Your task to perform on an android device: Open Reddit.com Image 0: 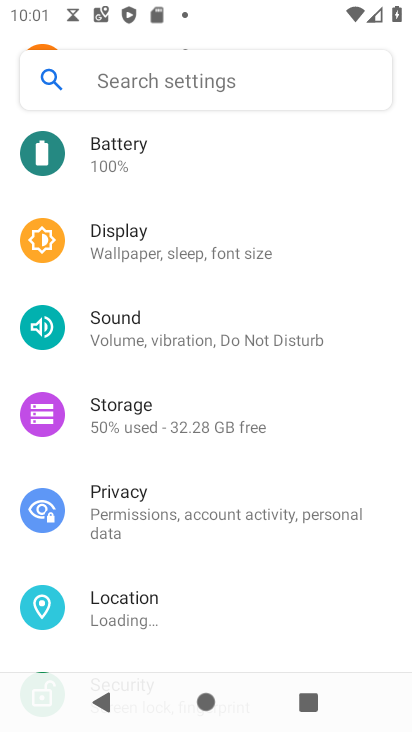
Step 0: press home button
Your task to perform on an android device: Open Reddit.com Image 1: 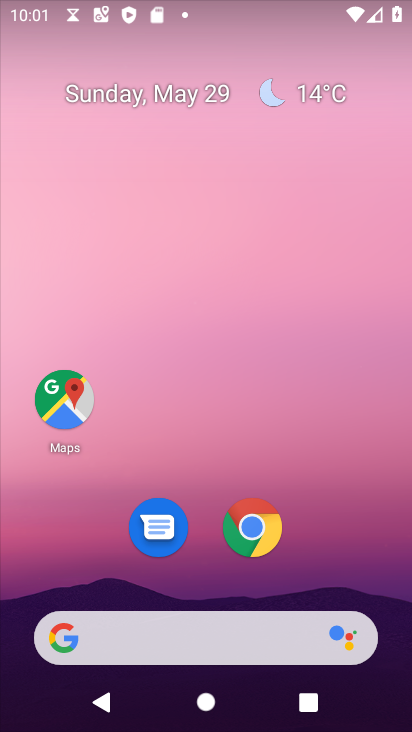
Step 1: click (258, 542)
Your task to perform on an android device: Open Reddit.com Image 2: 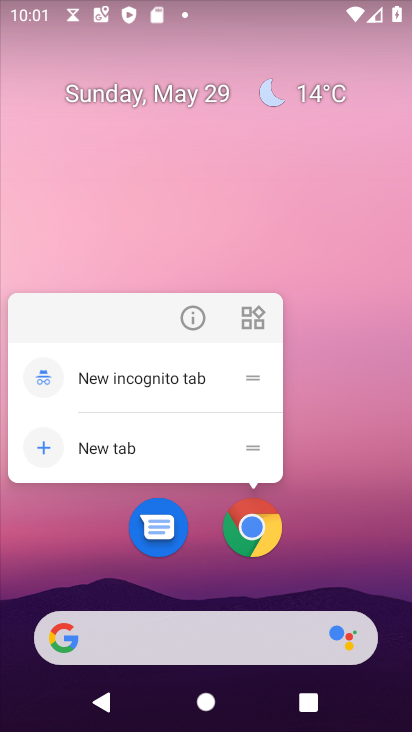
Step 2: click (249, 533)
Your task to perform on an android device: Open Reddit.com Image 3: 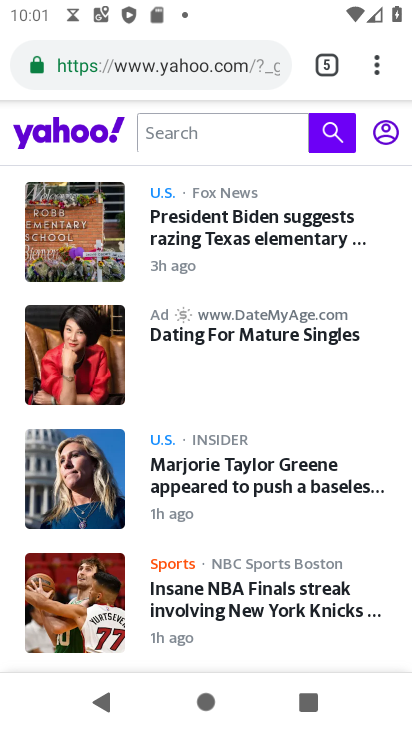
Step 3: click (186, 68)
Your task to perform on an android device: Open Reddit.com Image 4: 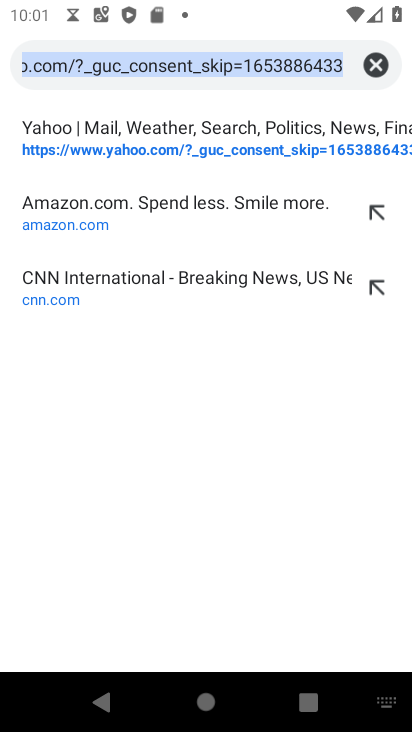
Step 4: click (381, 70)
Your task to perform on an android device: Open Reddit.com Image 5: 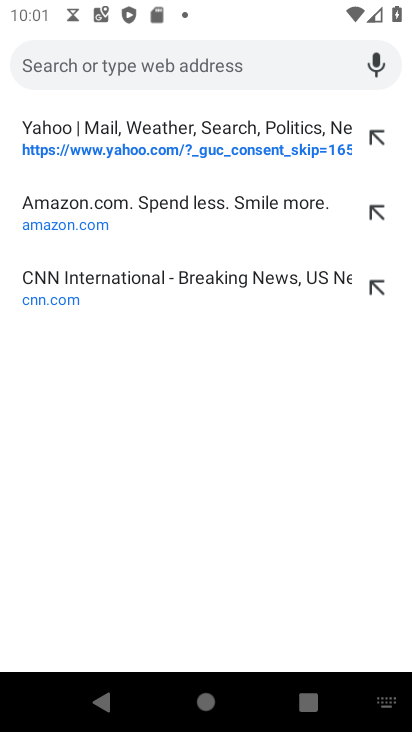
Step 5: type "reddit.com"
Your task to perform on an android device: Open Reddit.com Image 6: 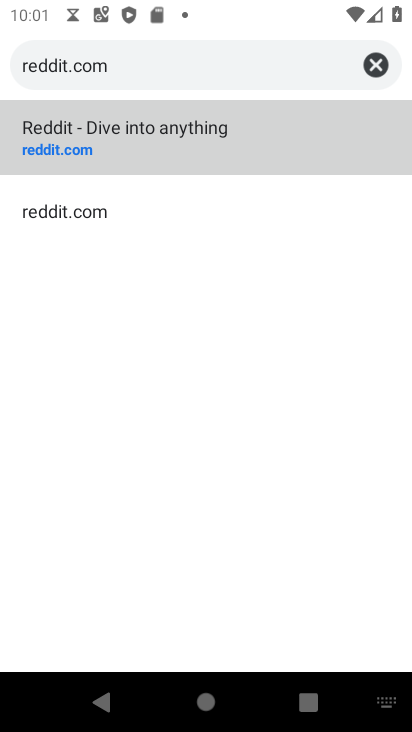
Step 6: click (151, 147)
Your task to perform on an android device: Open Reddit.com Image 7: 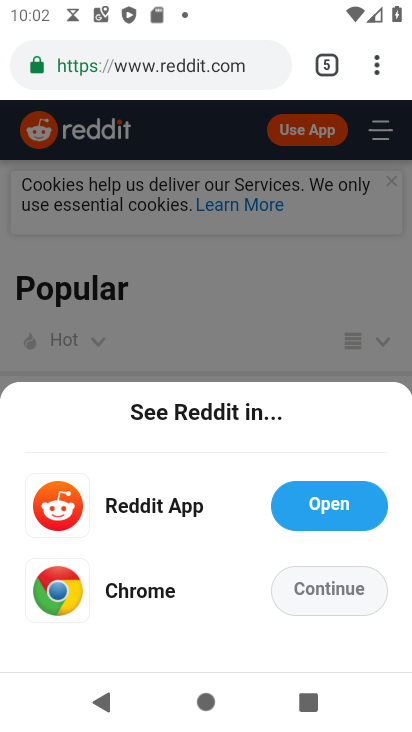
Step 7: task complete